Your task to perform on an android device: toggle javascript in the chrome app Image 0: 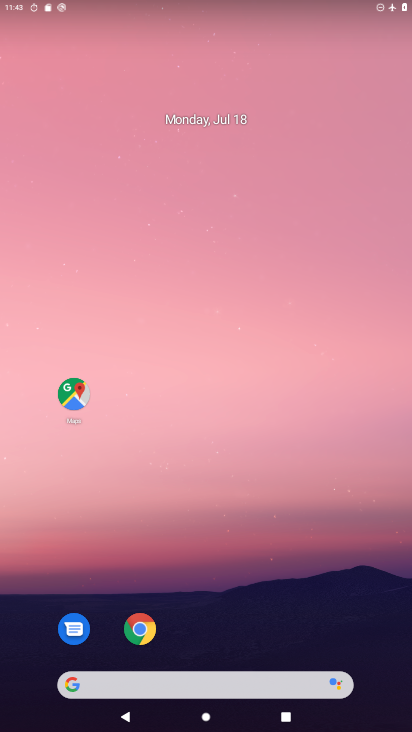
Step 0: drag from (243, 488) to (198, 52)
Your task to perform on an android device: toggle javascript in the chrome app Image 1: 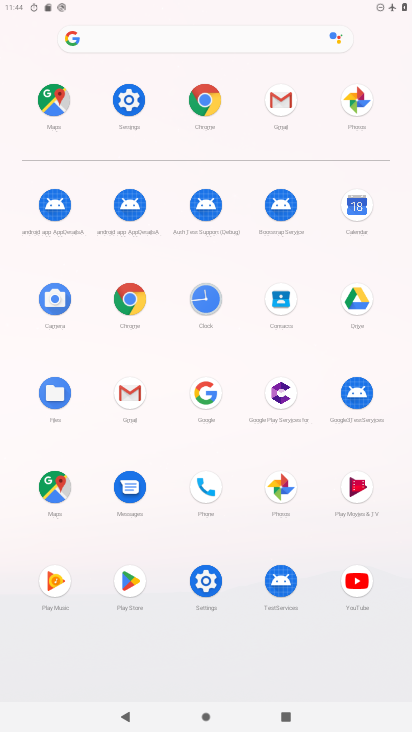
Step 1: click (207, 98)
Your task to perform on an android device: toggle javascript in the chrome app Image 2: 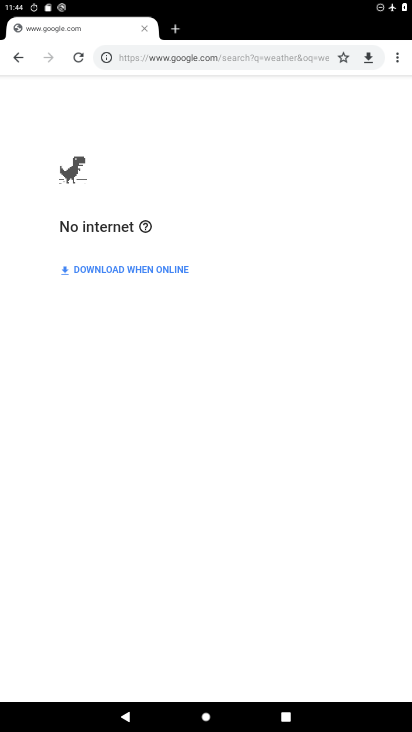
Step 2: drag from (393, 58) to (287, 382)
Your task to perform on an android device: toggle javascript in the chrome app Image 3: 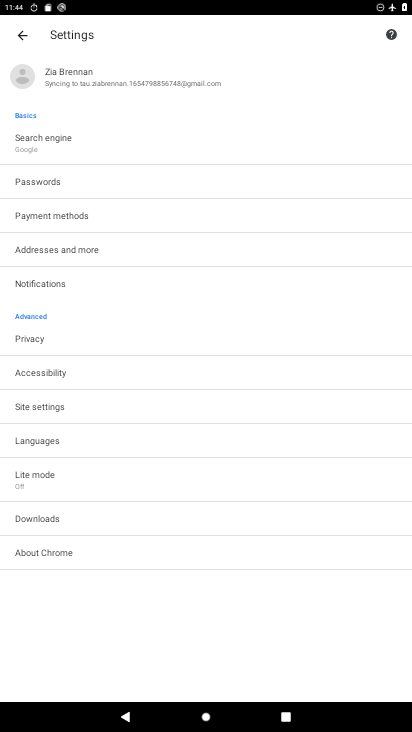
Step 3: click (43, 410)
Your task to perform on an android device: toggle javascript in the chrome app Image 4: 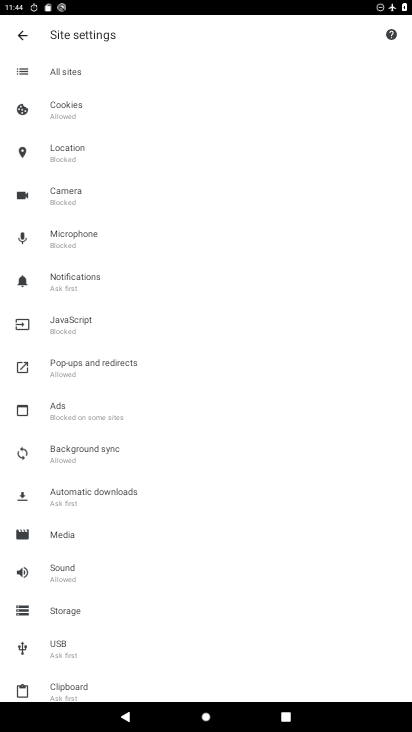
Step 4: click (73, 327)
Your task to perform on an android device: toggle javascript in the chrome app Image 5: 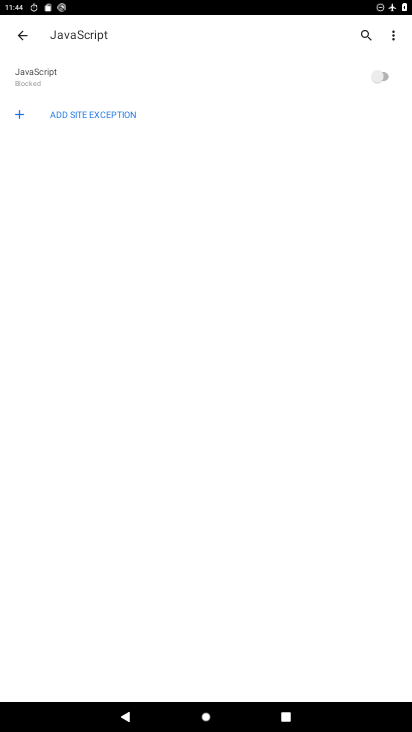
Step 5: click (379, 72)
Your task to perform on an android device: toggle javascript in the chrome app Image 6: 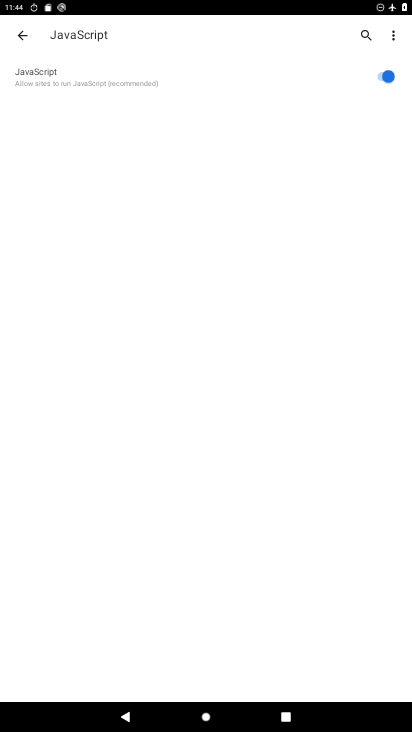
Step 6: task complete